Your task to perform on an android device: Go to privacy settings Image 0: 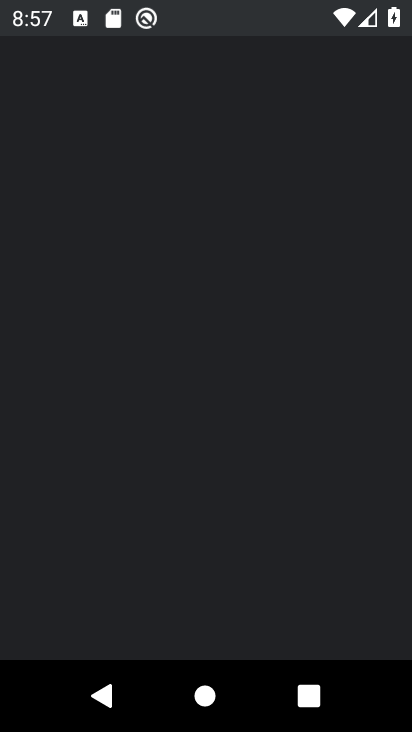
Step 0: click (60, 375)
Your task to perform on an android device: Go to privacy settings Image 1: 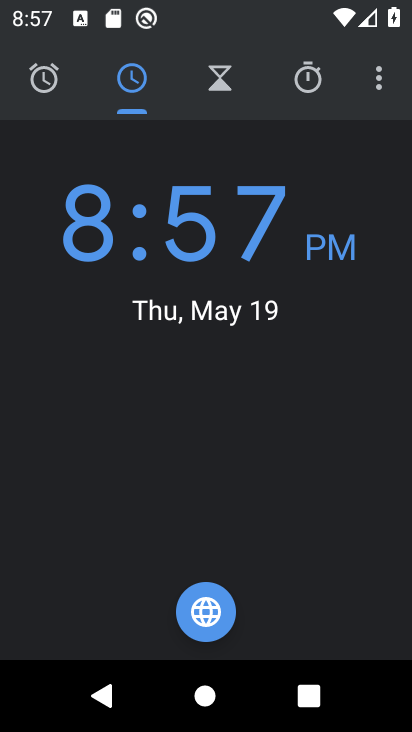
Step 1: press home button
Your task to perform on an android device: Go to privacy settings Image 2: 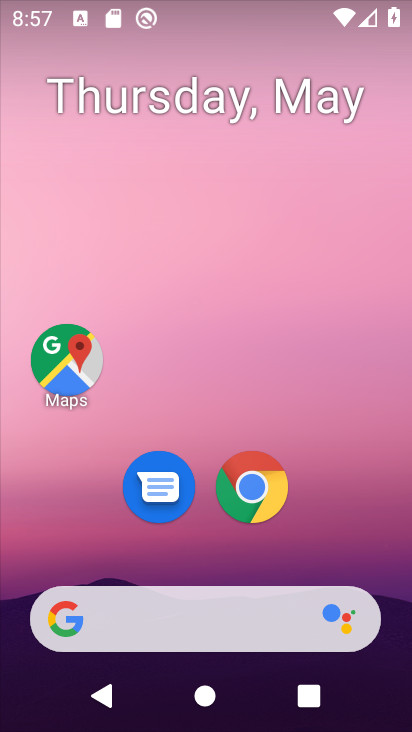
Step 2: press home button
Your task to perform on an android device: Go to privacy settings Image 3: 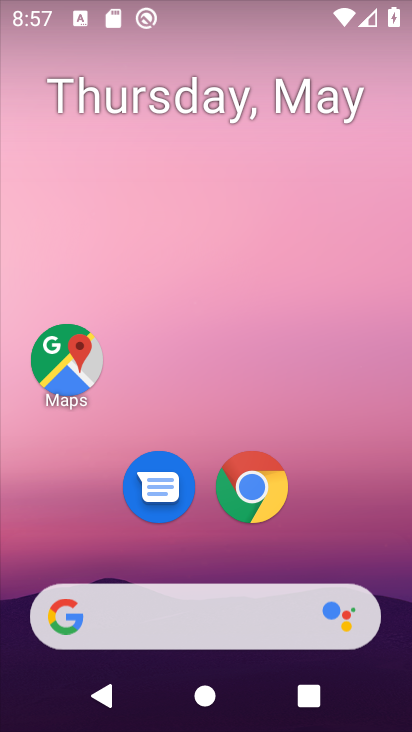
Step 3: click (46, 355)
Your task to perform on an android device: Go to privacy settings Image 4: 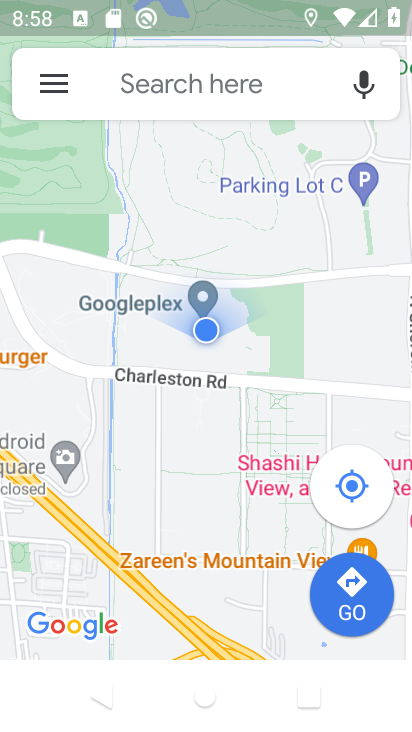
Step 4: press home button
Your task to perform on an android device: Go to privacy settings Image 5: 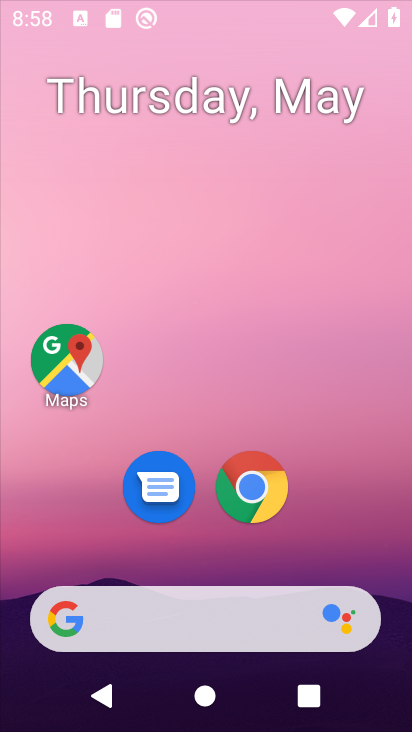
Step 5: press home button
Your task to perform on an android device: Go to privacy settings Image 6: 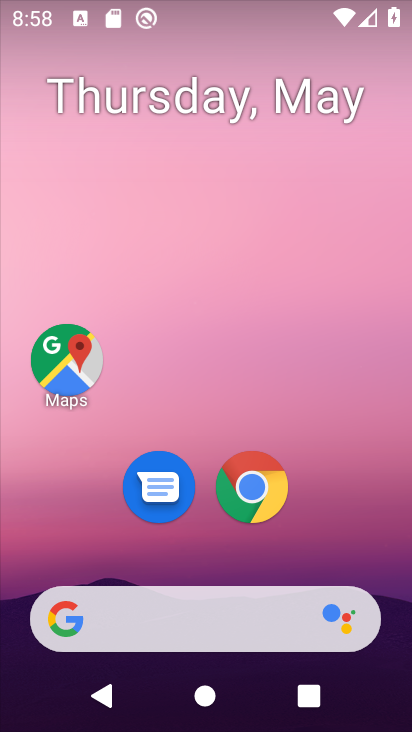
Step 6: click (310, 557)
Your task to perform on an android device: Go to privacy settings Image 7: 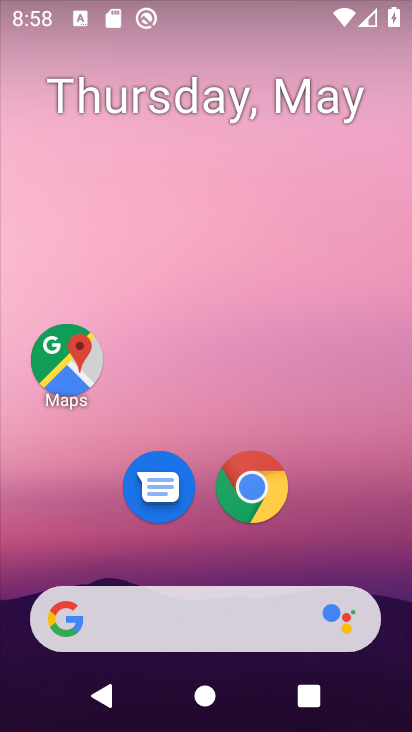
Step 7: drag from (175, 485) to (211, 22)
Your task to perform on an android device: Go to privacy settings Image 8: 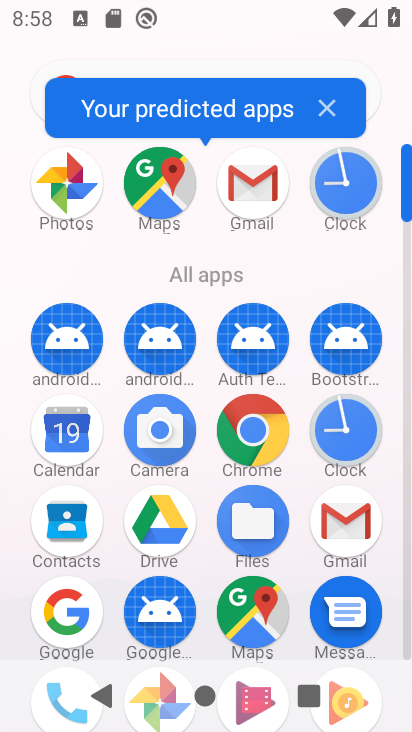
Step 8: drag from (206, 571) to (168, 10)
Your task to perform on an android device: Go to privacy settings Image 9: 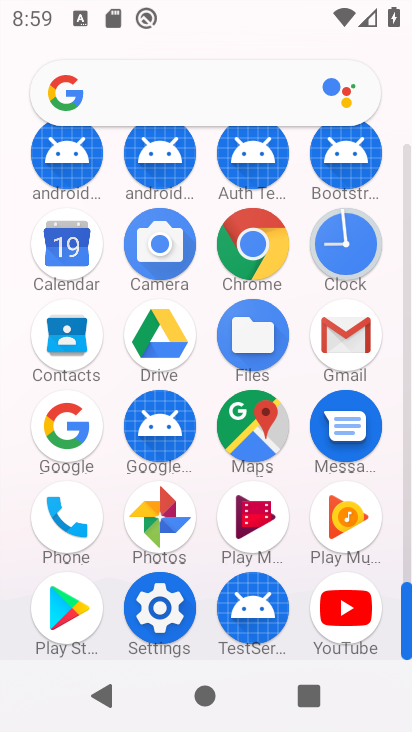
Step 9: click (180, 631)
Your task to perform on an android device: Go to privacy settings Image 10: 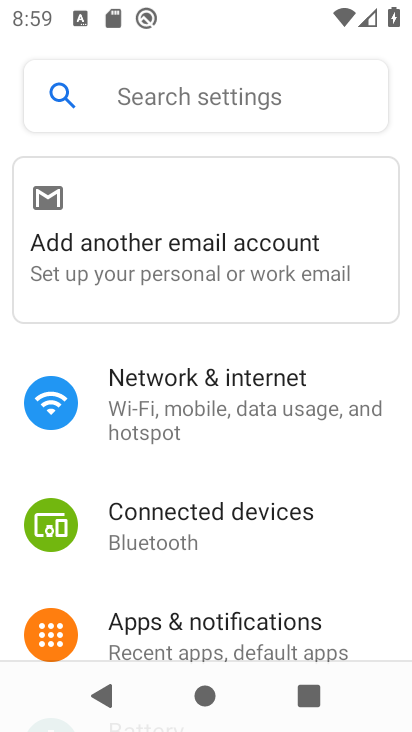
Step 10: drag from (230, 622) to (206, 179)
Your task to perform on an android device: Go to privacy settings Image 11: 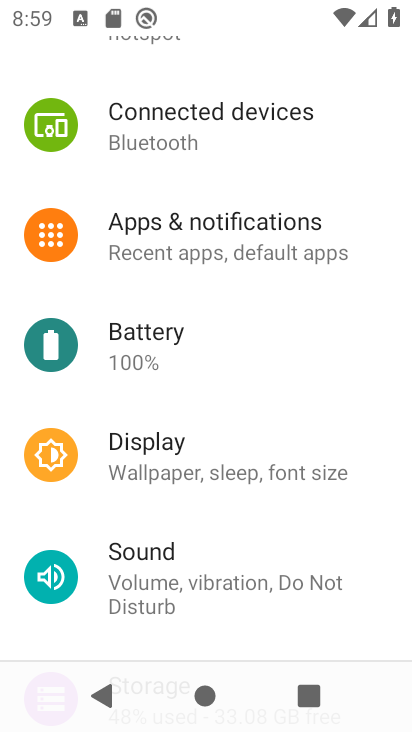
Step 11: drag from (163, 461) to (185, 14)
Your task to perform on an android device: Go to privacy settings Image 12: 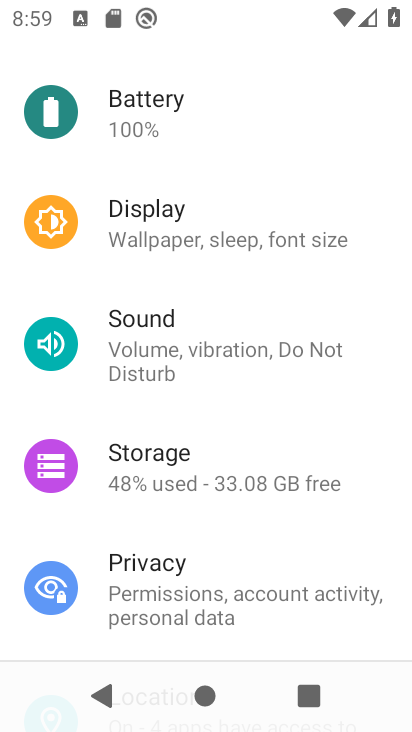
Step 12: click (174, 592)
Your task to perform on an android device: Go to privacy settings Image 13: 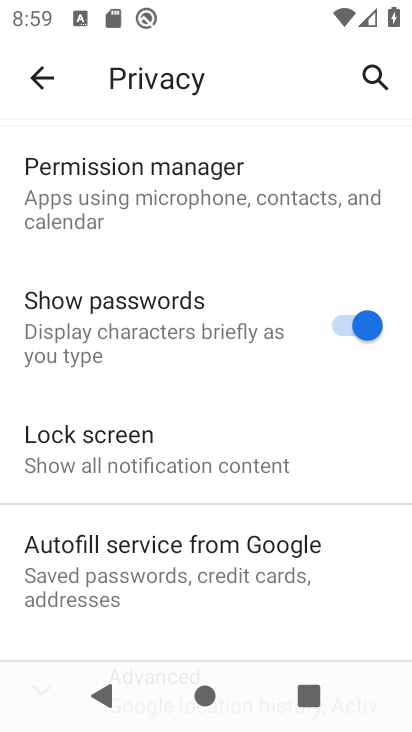
Step 13: drag from (190, 493) to (131, 0)
Your task to perform on an android device: Go to privacy settings Image 14: 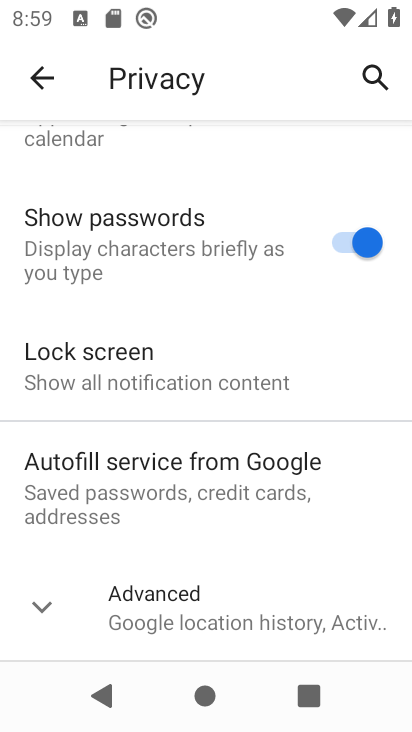
Step 14: click (200, 615)
Your task to perform on an android device: Go to privacy settings Image 15: 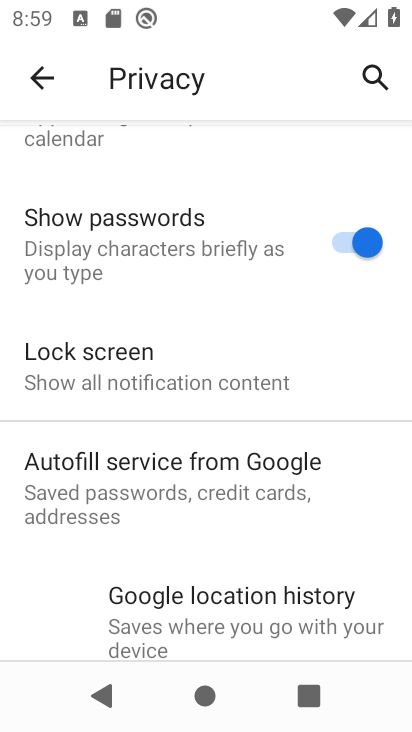
Step 15: task complete